Your task to perform on an android device: Search for pizza restaurants on Maps Image 0: 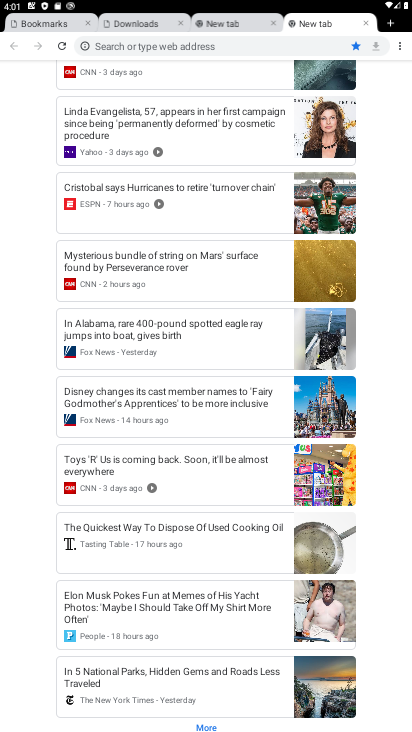
Step 0: press home button
Your task to perform on an android device: Search for pizza restaurants on Maps Image 1: 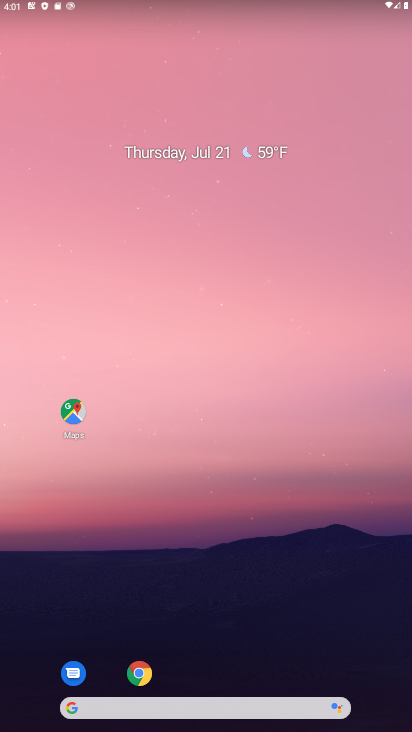
Step 1: click (75, 412)
Your task to perform on an android device: Search for pizza restaurants on Maps Image 2: 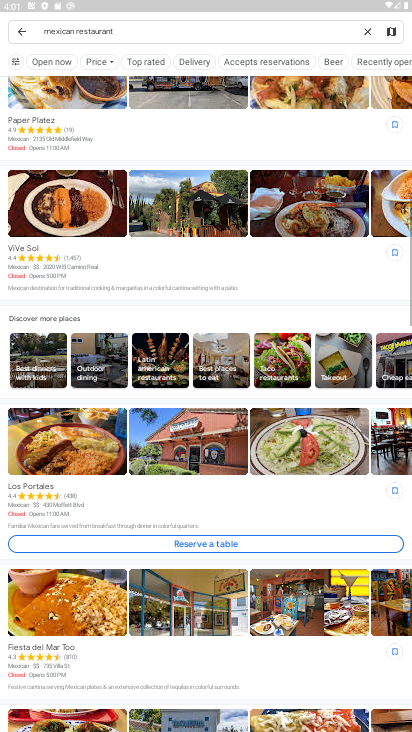
Step 2: click (366, 28)
Your task to perform on an android device: Search for pizza restaurants on Maps Image 3: 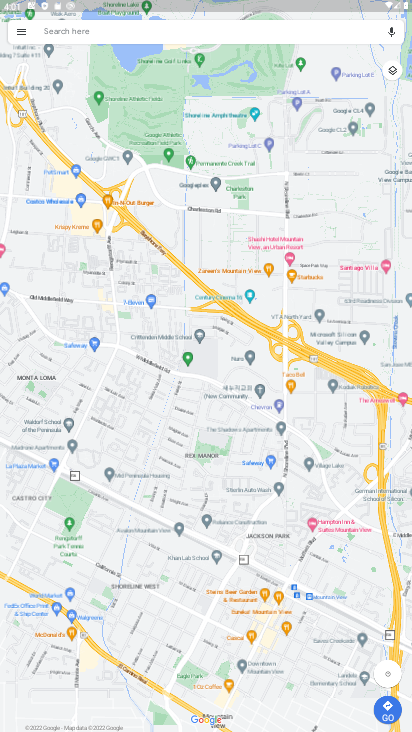
Step 3: click (103, 33)
Your task to perform on an android device: Search for pizza restaurants on Maps Image 4: 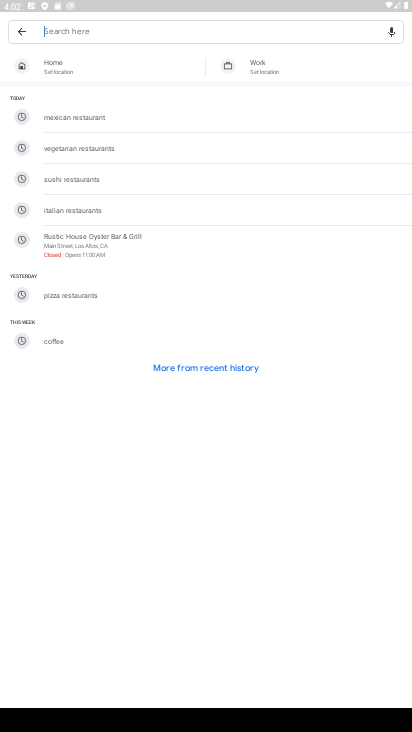
Step 4: type "pizza restaurant"
Your task to perform on an android device: Search for pizza restaurants on Maps Image 5: 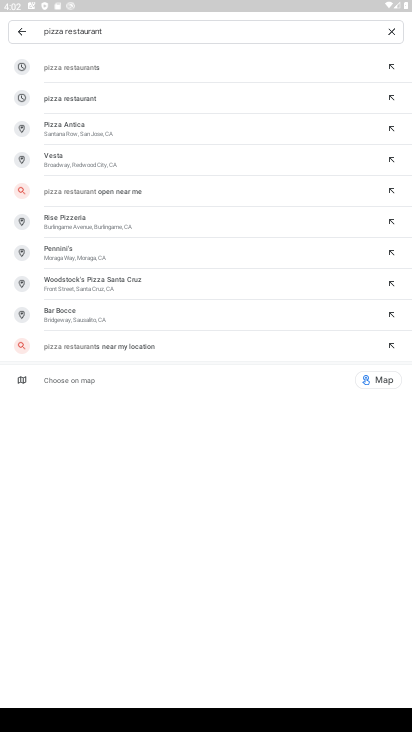
Step 5: click (81, 71)
Your task to perform on an android device: Search for pizza restaurants on Maps Image 6: 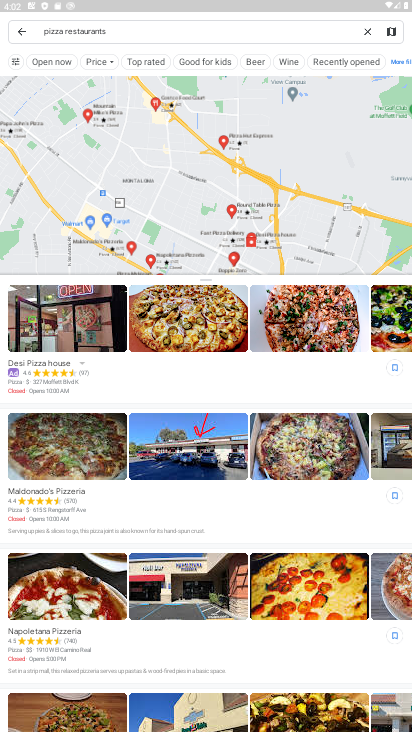
Step 6: task complete